Your task to perform on an android device: Go to battery settings Image 0: 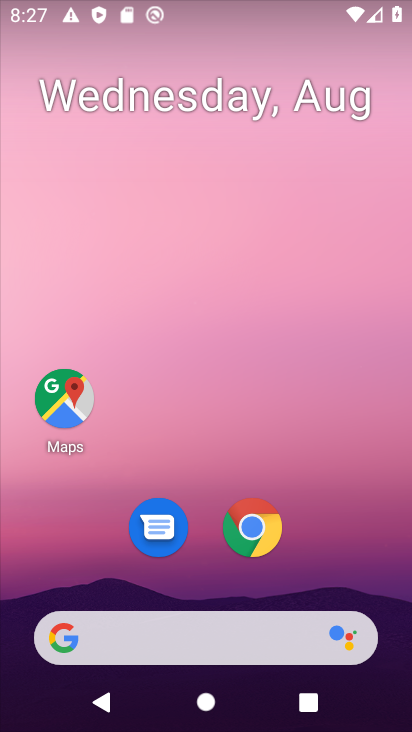
Step 0: drag from (192, 9) to (273, 562)
Your task to perform on an android device: Go to battery settings Image 1: 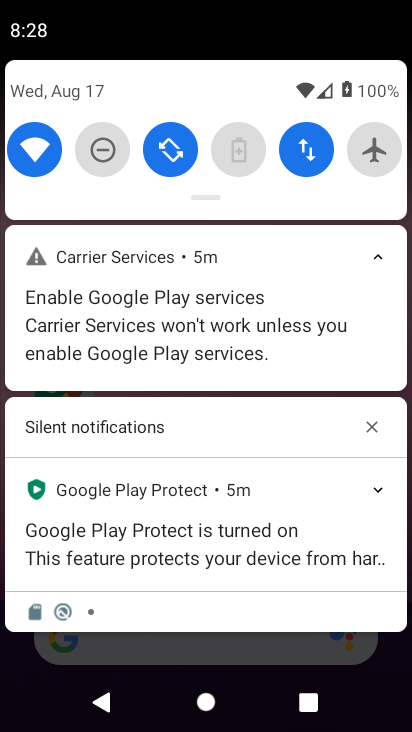
Step 1: click (252, 153)
Your task to perform on an android device: Go to battery settings Image 2: 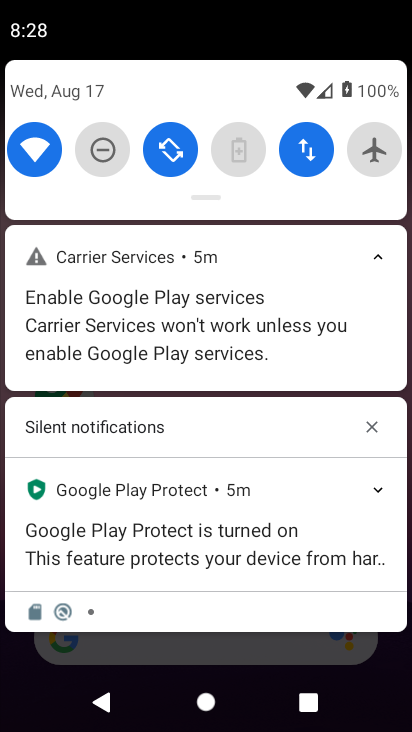
Step 2: click (252, 153)
Your task to perform on an android device: Go to battery settings Image 3: 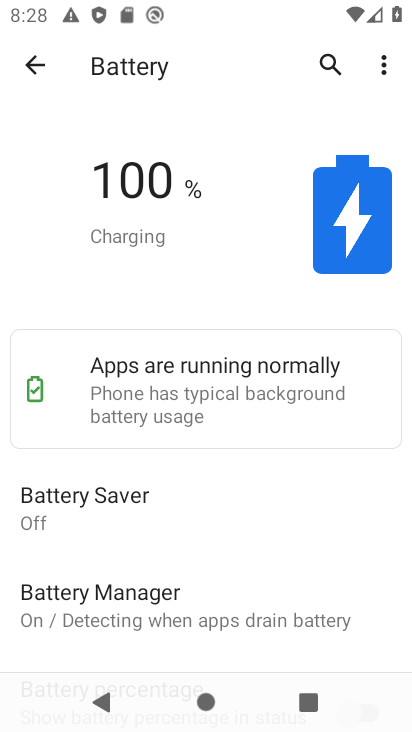
Step 3: task complete